Your task to perform on an android device: Go to Google maps Image 0: 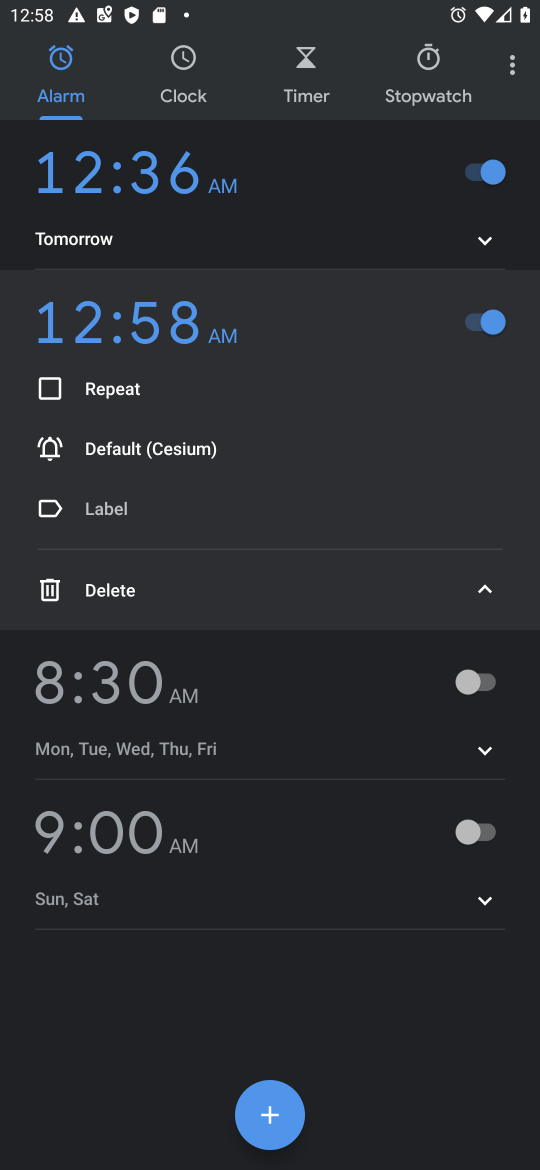
Step 0: press home button
Your task to perform on an android device: Go to Google maps Image 1: 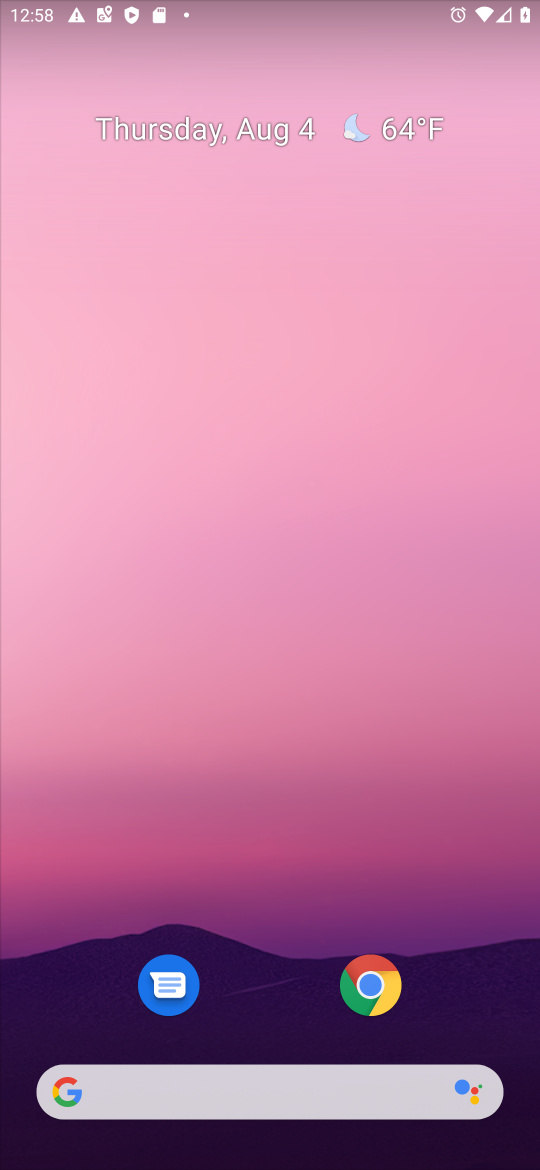
Step 1: drag from (309, 953) to (275, 193)
Your task to perform on an android device: Go to Google maps Image 2: 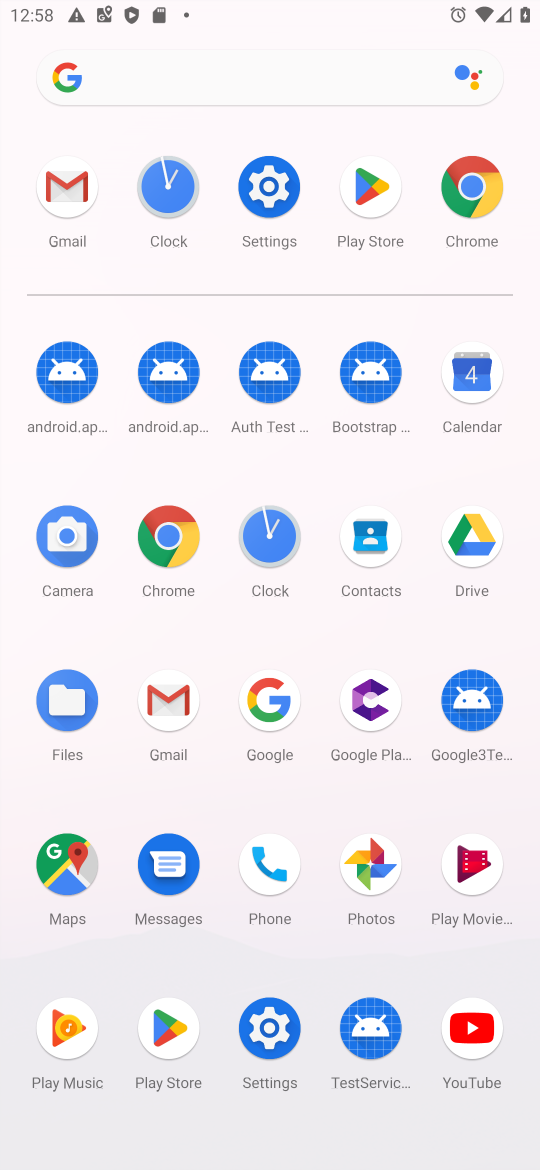
Step 2: click (55, 874)
Your task to perform on an android device: Go to Google maps Image 3: 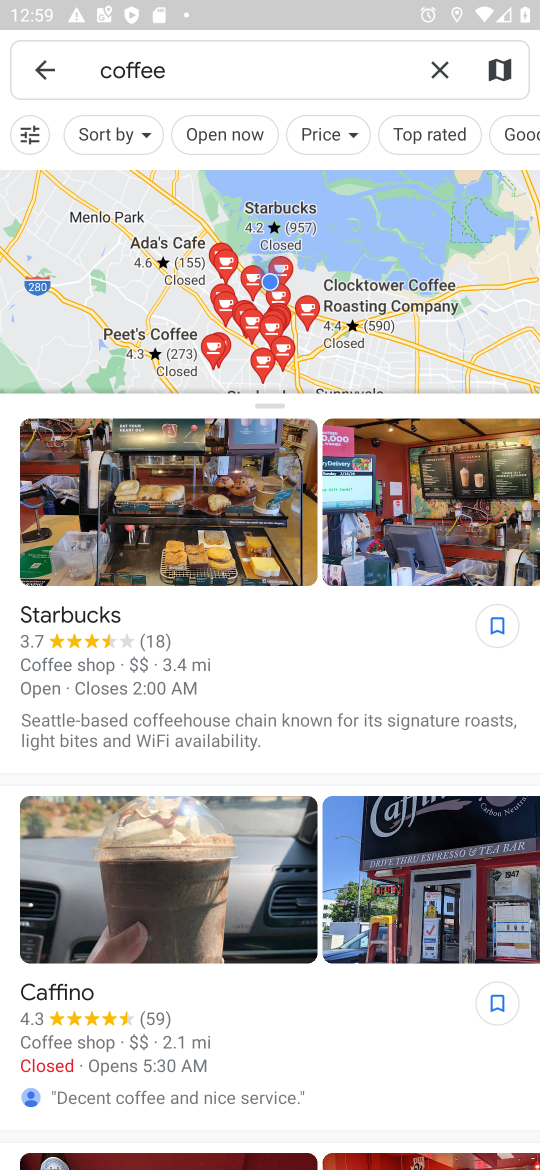
Step 3: click (38, 67)
Your task to perform on an android device: Go to Google maps Image 4: 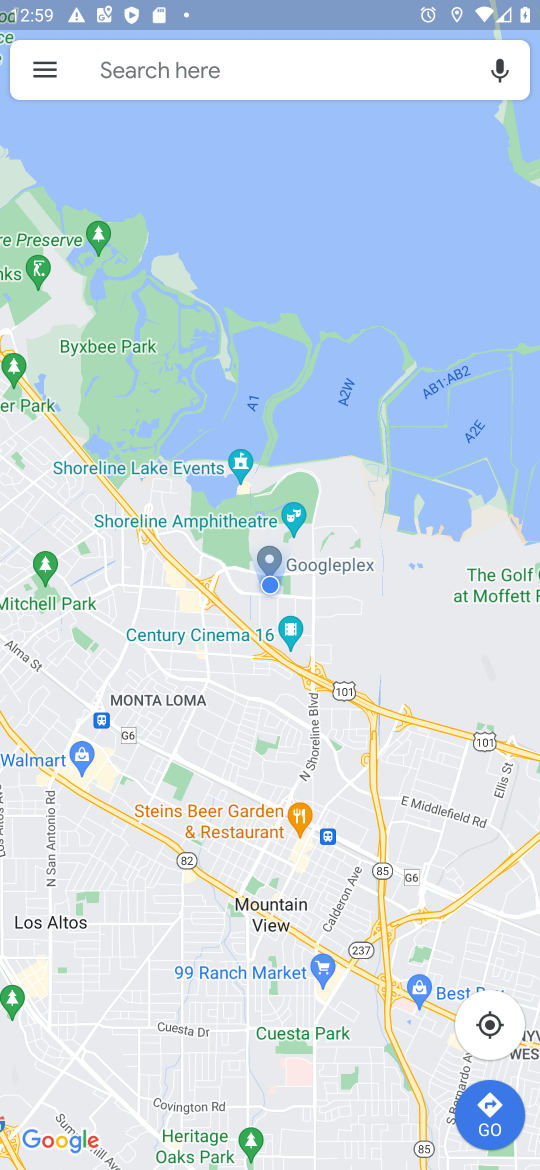
Step 4: task complete